Your task to perform on an android device: Open wifi settings Image 0: 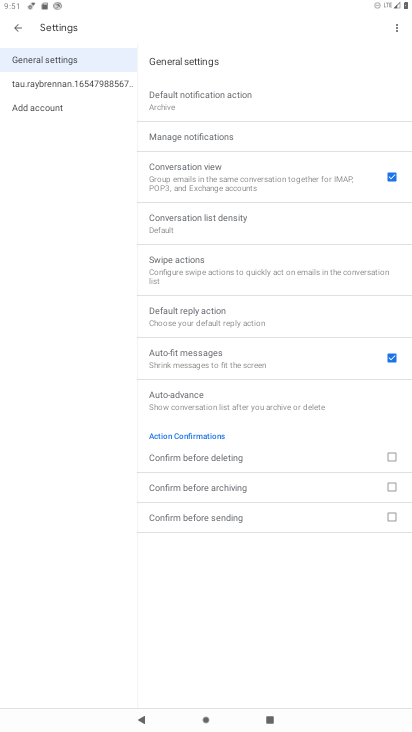
Step 0: press home button
Your task to perform on an android device: Open wifi settings Image 1: 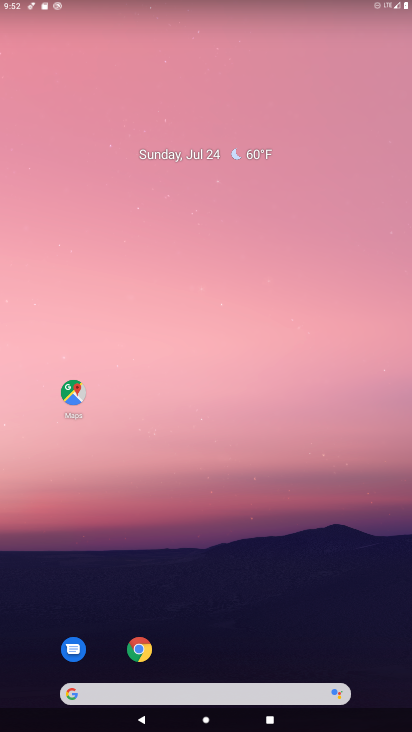
Step 1: drag from (284, 648) to (180, 101)
Your task to perform on an android device: Open wifi settings Image 2: 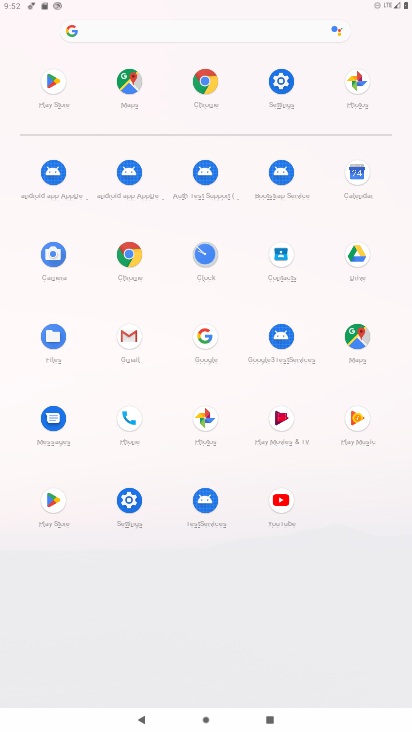
Step 2: click (279, 71)
Your task to perform on an android device: Open wifi settings Image 3: 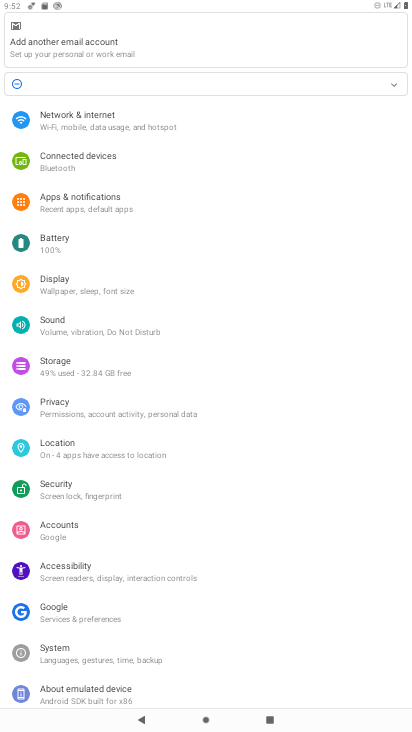
Step 3: click (111, 122)
Your task to perform on an android device: Open wifi settings Image 4: 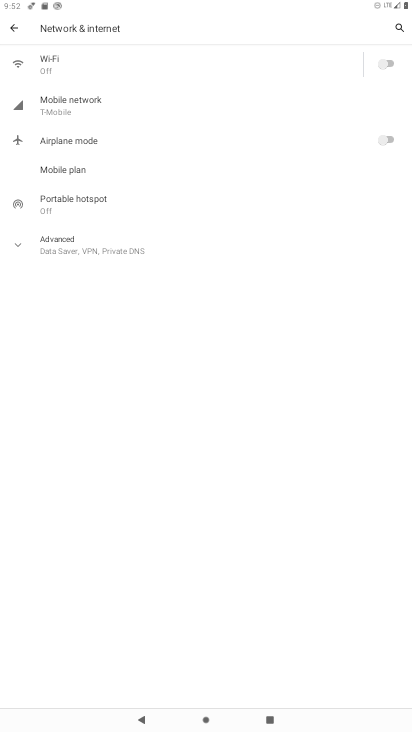
Step 4: click (111, 60)
Your task to perform on an android device: Open wifi settings Image 5: 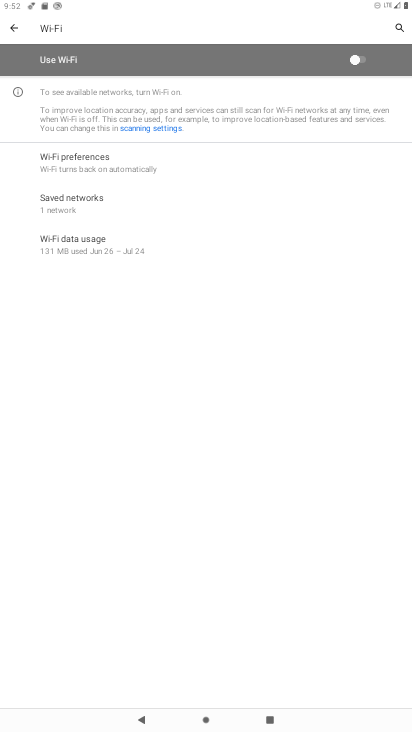
Step 5: click (369, 53)
Your task to perform on an android device: Open wifi settings Image 6: 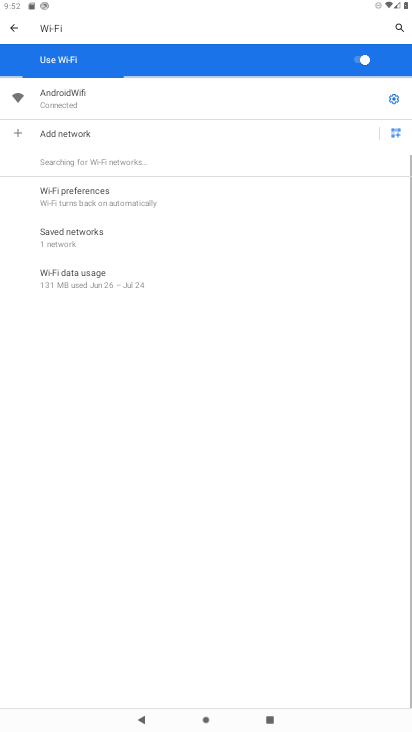
Step 6: click (390, 93)
Your task to perform on an android device: Open wifi settings Image 7: 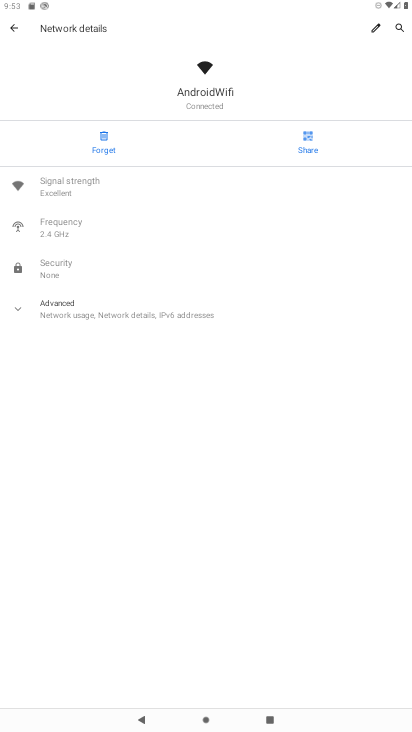
Step 7: task complete